Your task to perform on an android device: toggle location history Image 0: 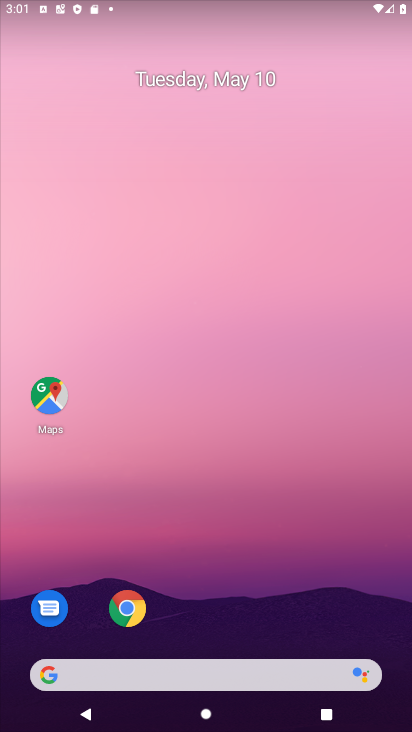
Step 0: click (48, 392)
Your task to perform on an android device: toggle location history Image 1: 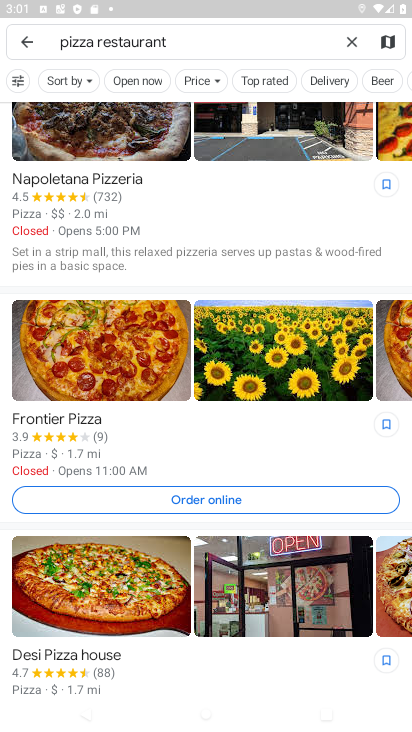
Step 1: click (351, 37)
Your task to perform on an android device: toggle location history Image 2: 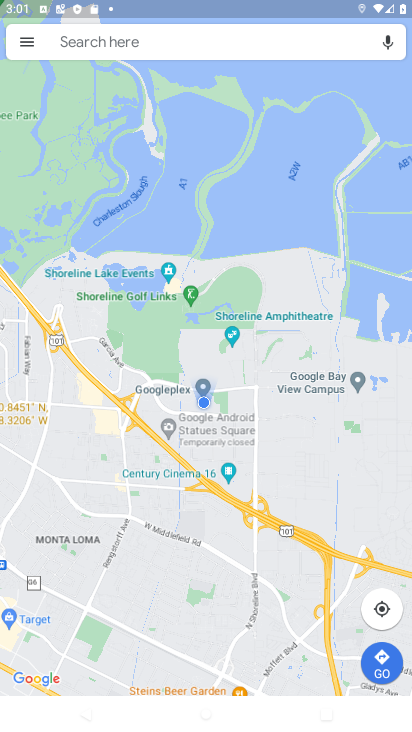
Step 2: click (24, 40)
Your task to perform on an android device: toggle location history Image 3: 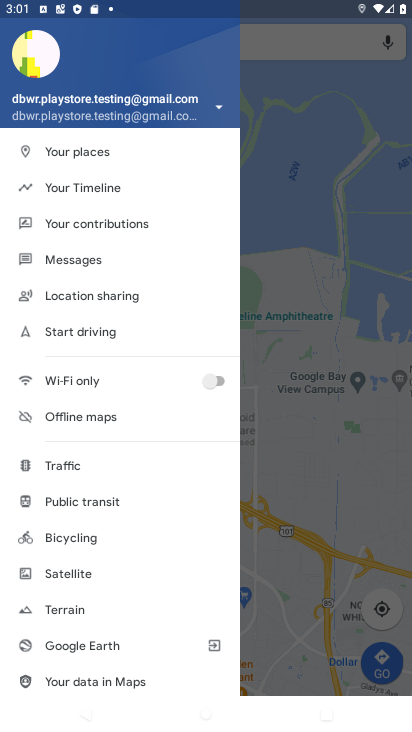
Step 3: drag from (145, 591) to (165, 269)
Your task to perform on an android device: toggle location history Image 4: 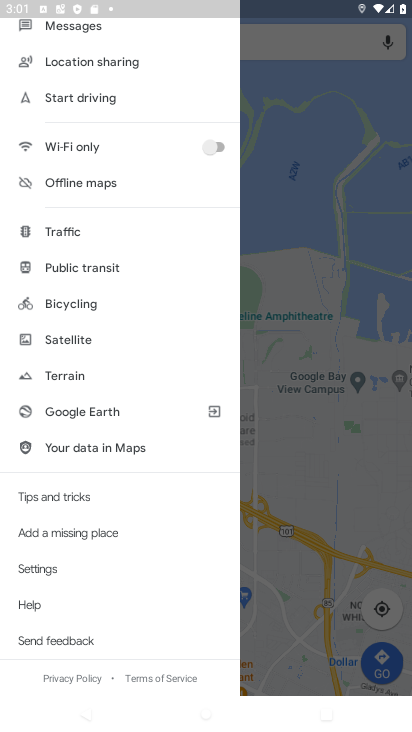
Step 4: click (33, 567)
Your task to perform on an android device: toggle location history Image 5: 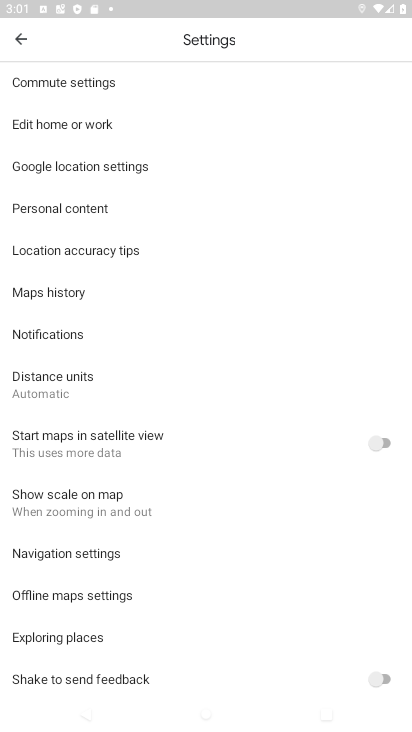
Step 5: click (33, 204)
Your task to perform on an android device: toggle location history Image 6: 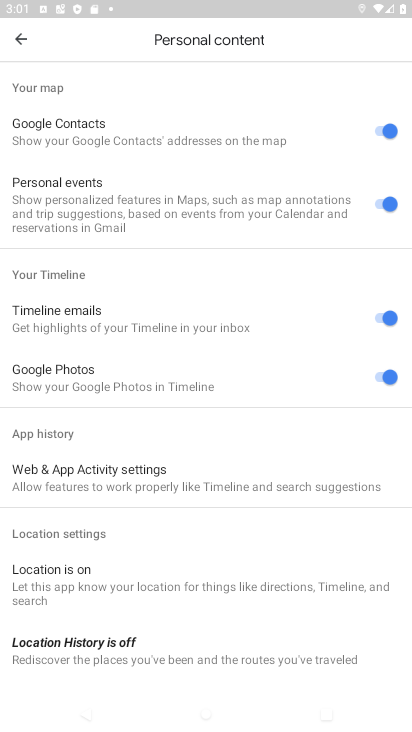
Step 6: drag from (211, 610) to (219, 232)
Your task to perform on an android device: toggle location history Image 7: 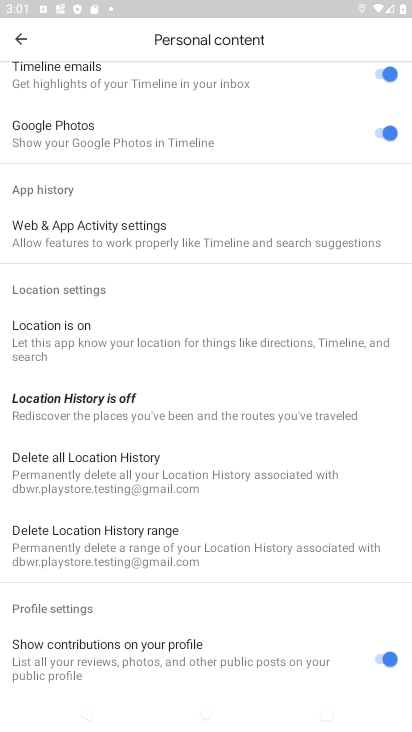
Step 7: click (96, 405)
Your task to perform on an android device: toggle location history Image 8: 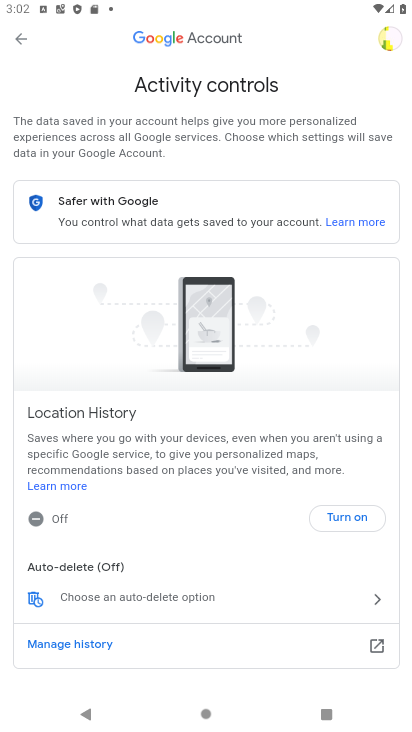
Step 8: click (343, 513)
Your task to perform on an android device: toggle location history Image 9: 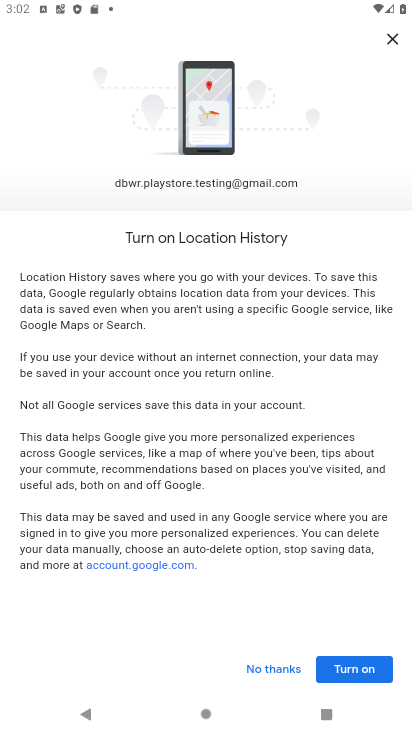
Step 9: click (352, 665)
Your task to perform on an android device: toggle location history Image 10: 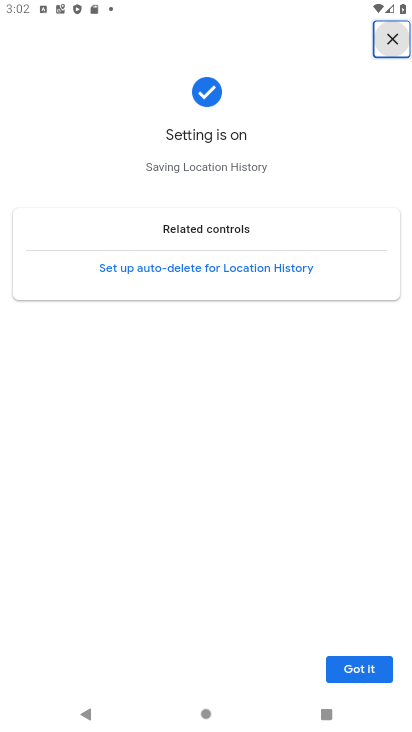
Step 10: click (356, 668)
Your task to perform on an android device: toggle location history Image 11: 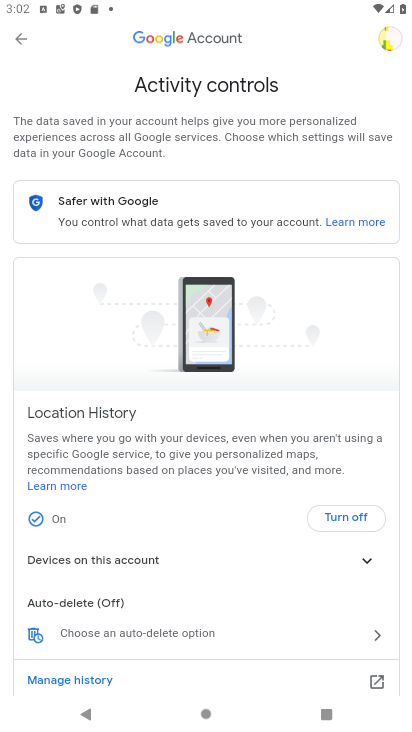
Step 11: task complete